Your task to perform on an android device: make emails show in primary in the gmail app Image 0: 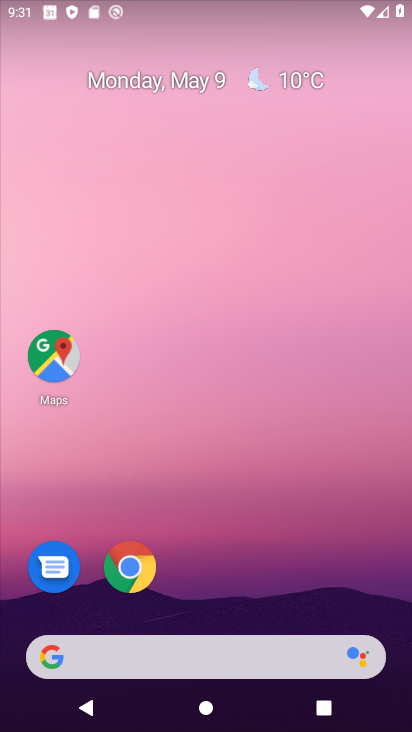
Step 0: click (299, 81)
Your task to perform on an android device: make emails show in primary in the gmail app Image 1: 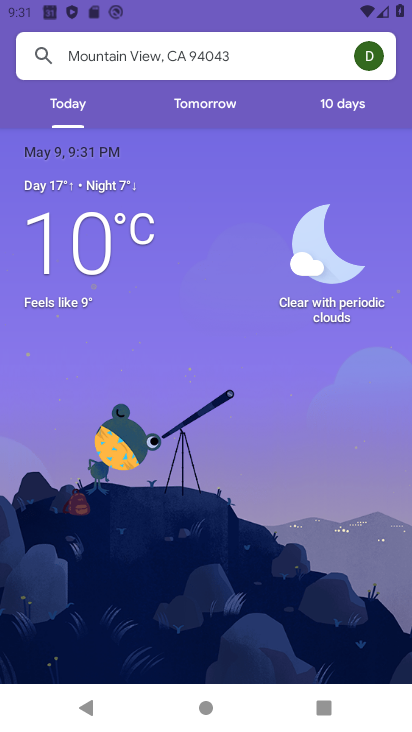
Step 1: task complete